Your task to perform on an android device: delete the emails in spam in the gmail app Image 0: 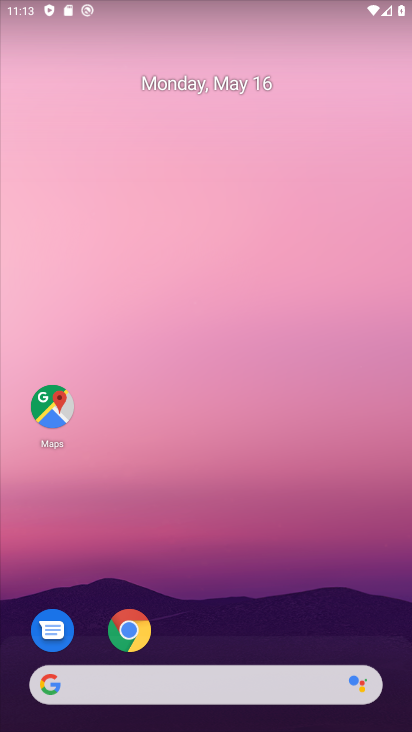
Step 0: drag from (207, 672) to (207, 224)
Your task to perform on an android device: delete the emails in spam in the gmail app Image 1: 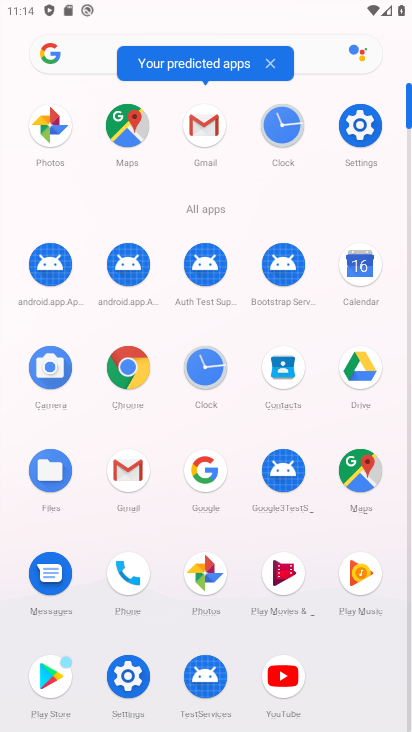
Step 1: click (201, 126)
Your task to perform on an android device: delete the emails in spam in the gmail app Image 2: 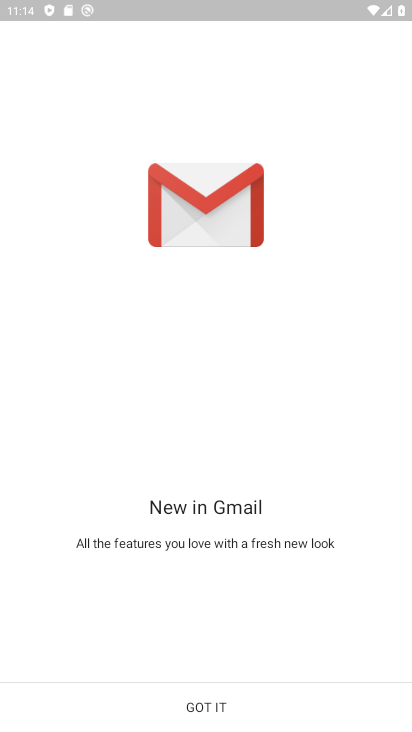
Step 2: click (215, 703)
Your task to perform on an android device: delete the emails in spam in the gmail app Image 3: 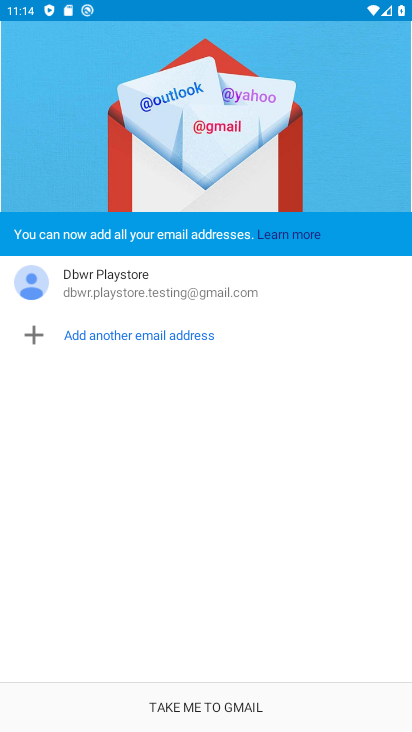
Step 3: click (214, 702)
Your task to perform on an android device: delete the emails in spam in the gmail app Image 4: 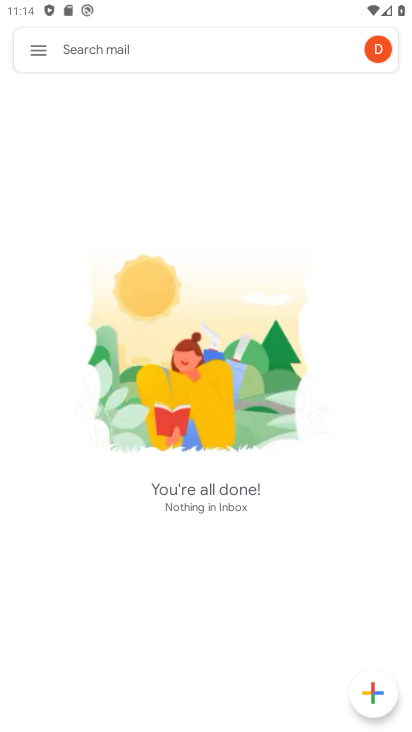
Step 4: click (39, 58)
Your task to perform on an android device: delete the emails in spam in the gmail app Image 5: 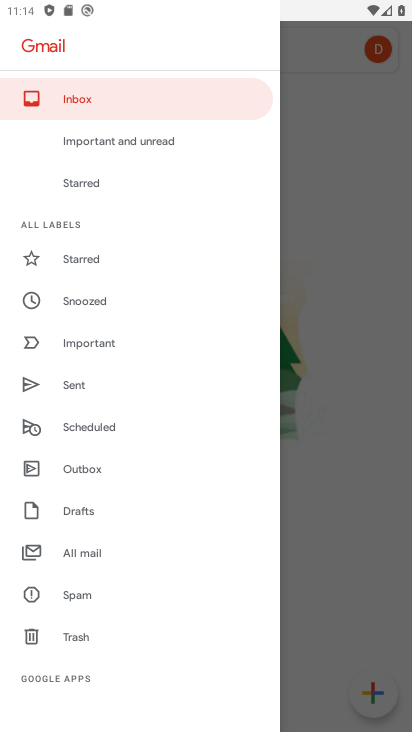
Step 5: click (82, 602)
Your task to perform on an android device: delete the emails in spam in the gmail app Image 6: 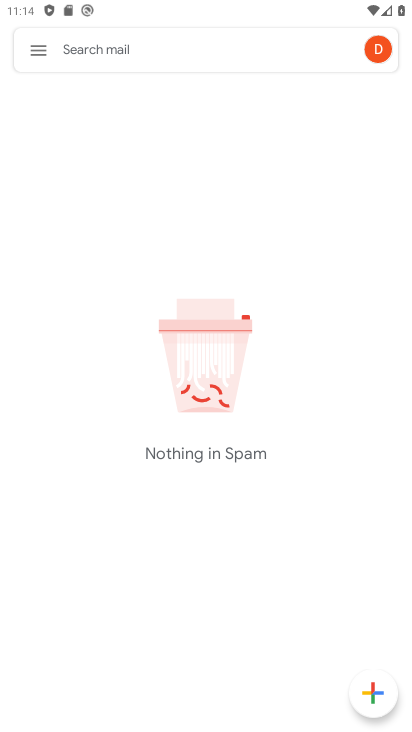
Step 6: task complete